Your task to perform on an android device: turn off javascript in the chrome app Image 0: 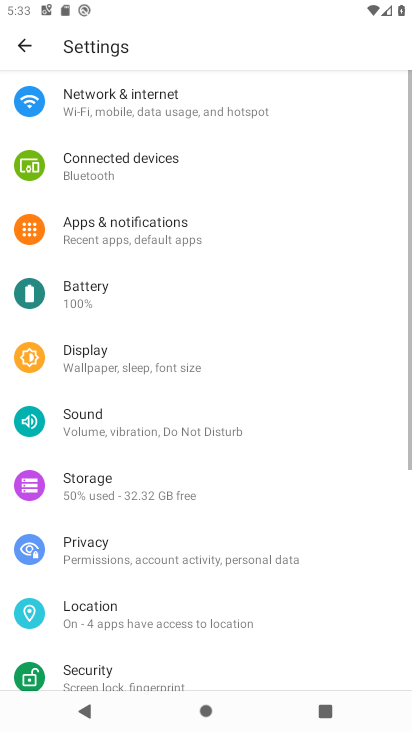
Step 0: press home button
Your task to perform on an android device: turn off javascript in the chrome app Image 1: 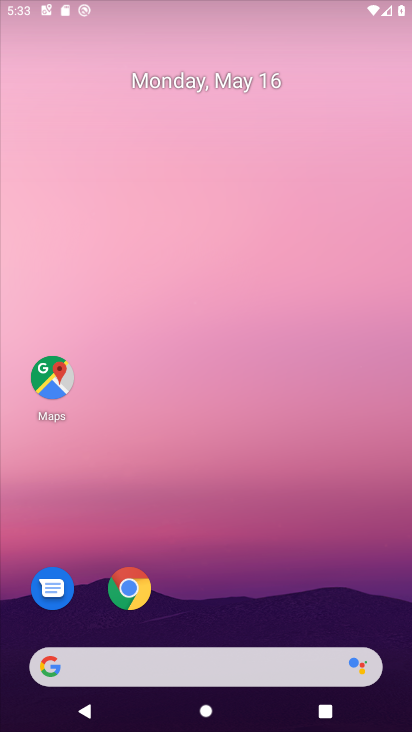
Step 1: drag from (236, 493) to (205, 93)
Your task to perform on an android device: turn off javascript in the chrome app Image 2: 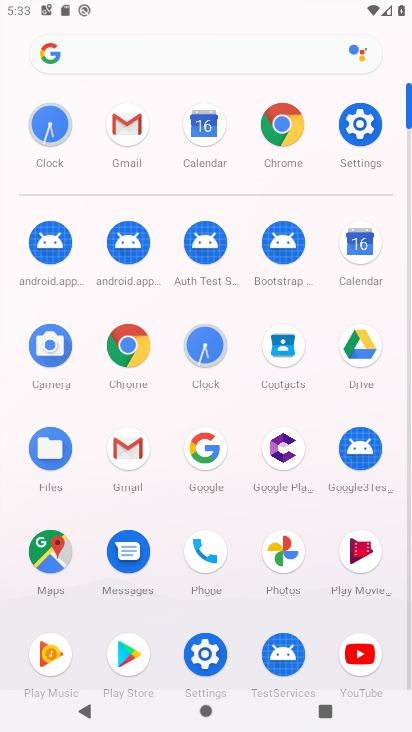
Step 2: click (134, 348)
Your task to perform on an android device: turn off javascript in the chrome app Image 3: 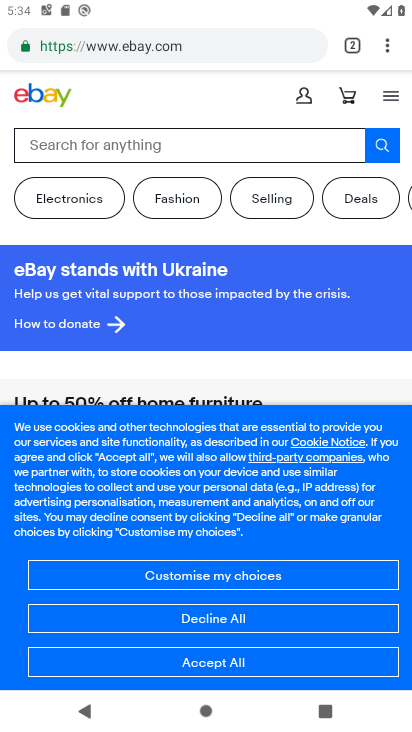
Step 3: click (389, 38)
Your task to perform on an android device: turn off javascript in the chrome app Image 4: 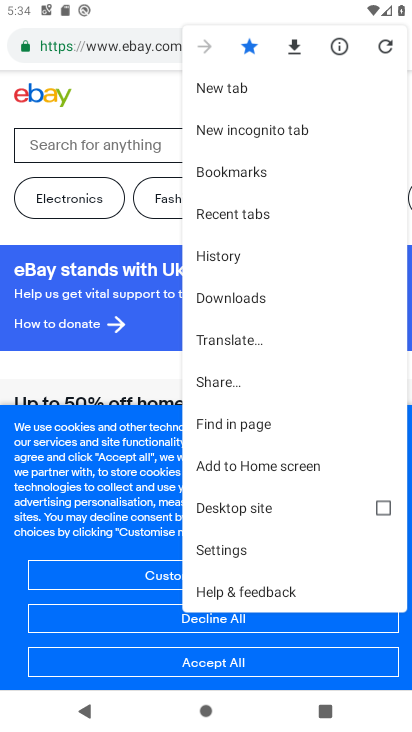
Step 4: click (270, 539)
Your task to perform on an android device: turn off javascript in the chrome app Image 5: 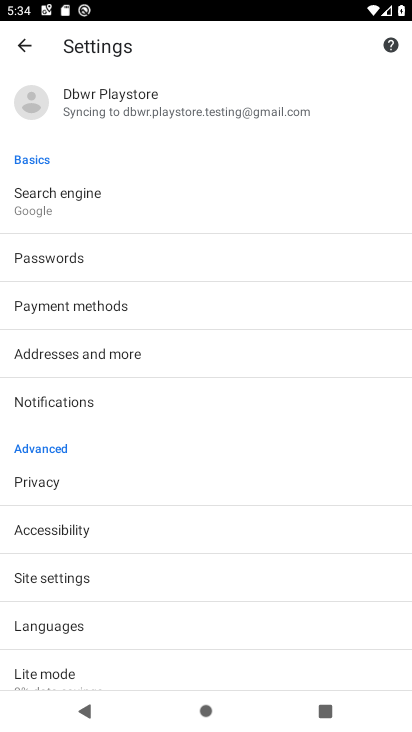
Step 5: click (148, 571)
Your task to perform on an android device: turn off javascript in the chrome app Image 6: 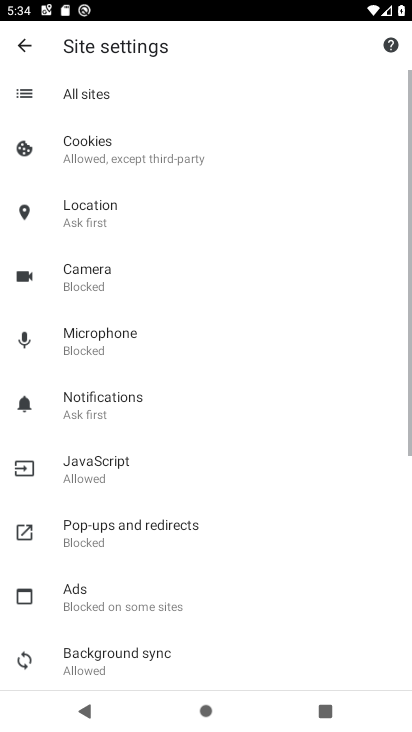
Step 6: click (160, 469)
Your task to perform on an android device: turn off javascript in the chrome app Image 7: 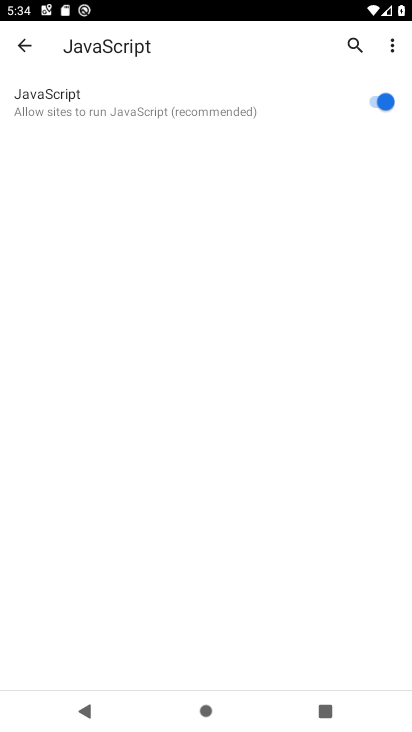
Step 7: click (390, 102)
Your task to perform on an android device: turn off javascript in the chrome app Image 8: 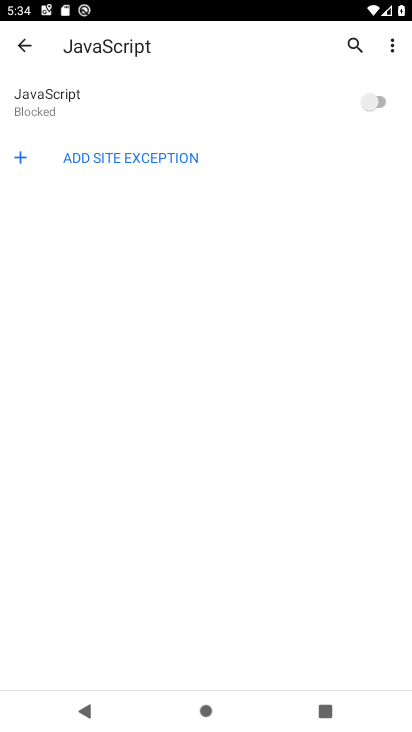
Step 8: task complete